Your task to perform on an android device: Open Google Chrome and open the bookmarks view Image 0: 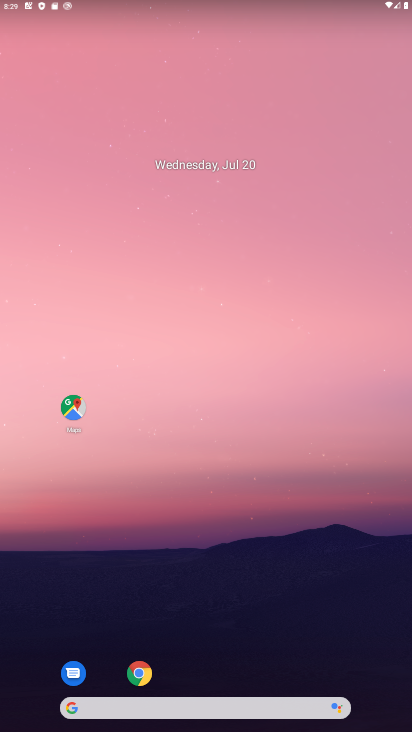
Step 0: drag from (178, 672) to (251, 181)
Your task to perform on an android device: Open Google Chrome and open the bookmarks view Image 1: 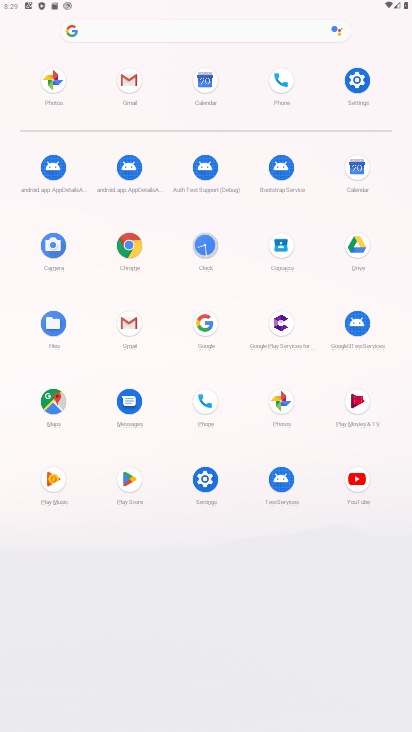
Step 1: click (126, 249)
Your task to perform on an android device: Open Google Chrome and open the bookmarks view Image 2: 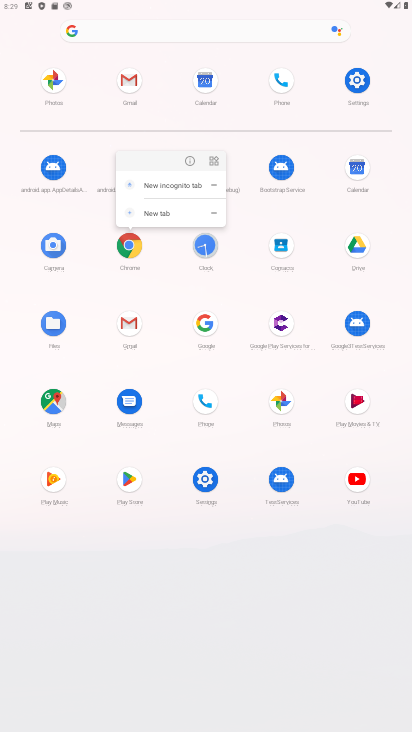
Step 2: click (188, 161)
Your task to perform on an android device: Open Google Chrome and open the bookmarks view Image 3: 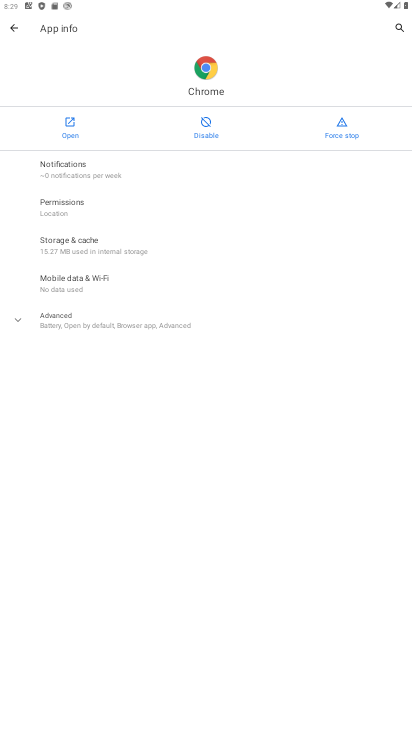
Step 3: click (63, 124)
Your task to perform on an android device: Open Google Chrome and open the bookmarks view Image 4: 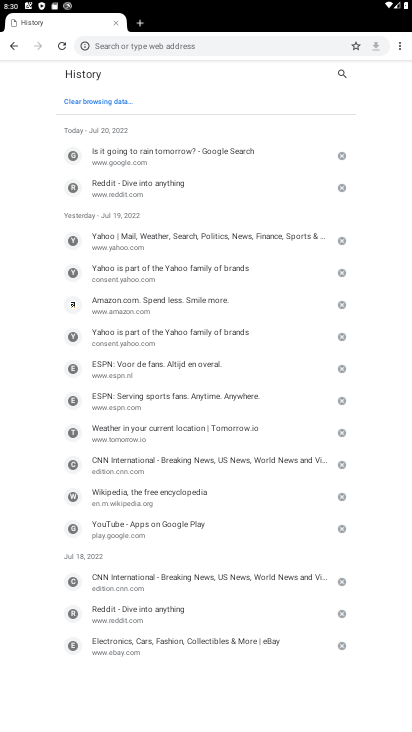
Step 4: drag from (396, 42) to (315, 213)
Your task to perform on an android device: Open Google Chrome and open the bookmarks view Image 5: 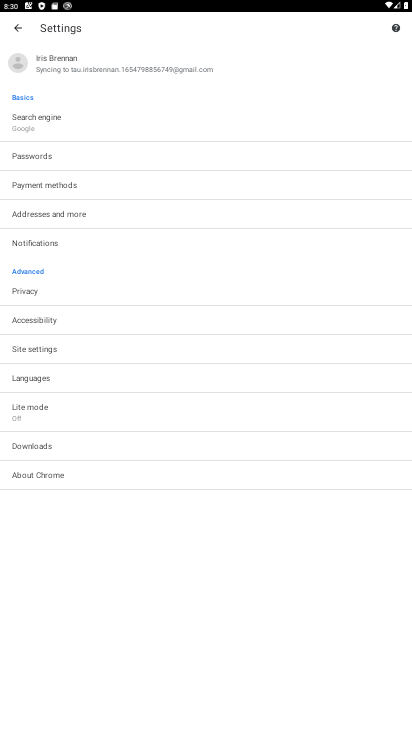
Step 5: click (13, 29)
Your task to perform on an android device: Open Google Chrome and open the bookmarks view Image 6: 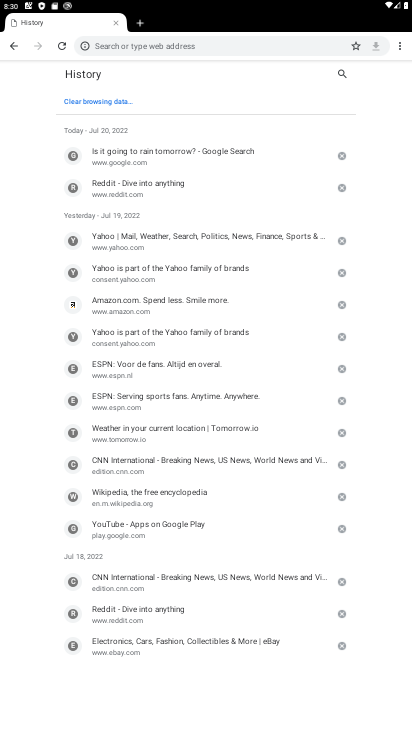
Step 6: task complete